Your task to perform on an android device: check storage Image 0: 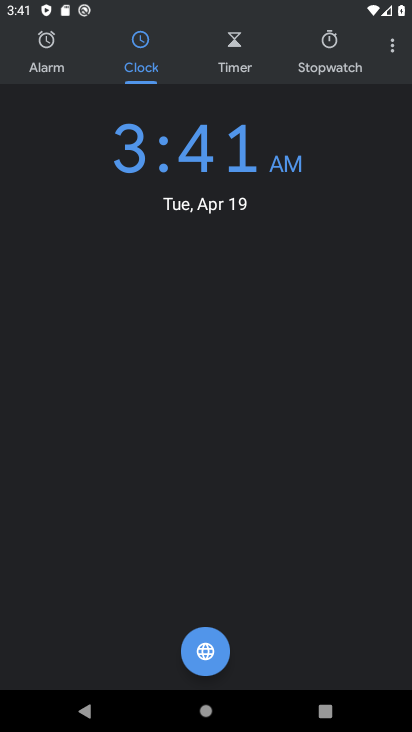
Step 0: press home button
Your task to perform on an android device: check storage Image 1: 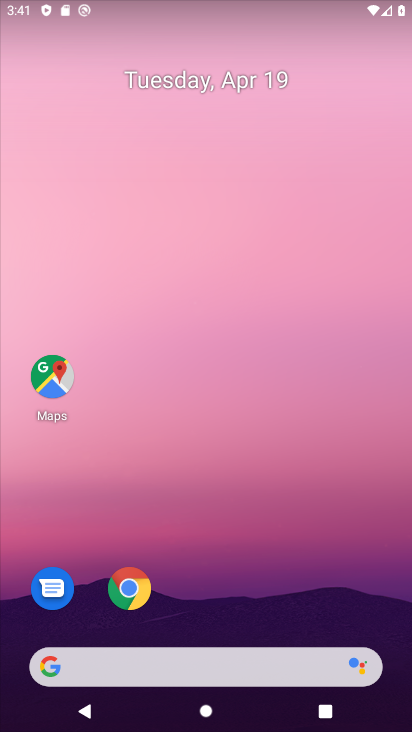
Step 1: drag from (216, 497) to (202, 158)
Your task to perform on an android device: check storage Image 2: 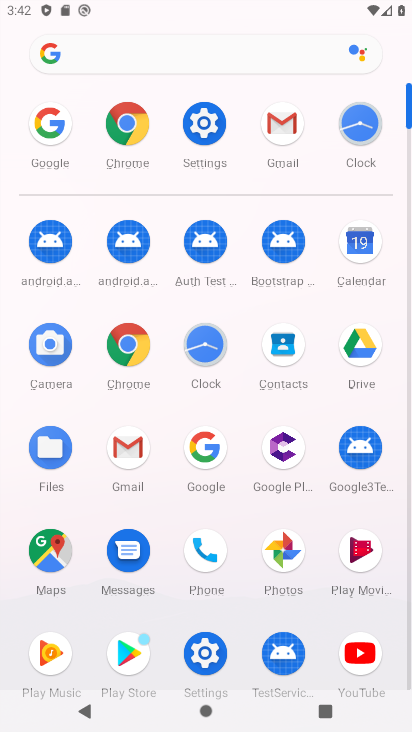
Step 2: click (206, 646)
Your task to perform on an android device: check storage Image 3: 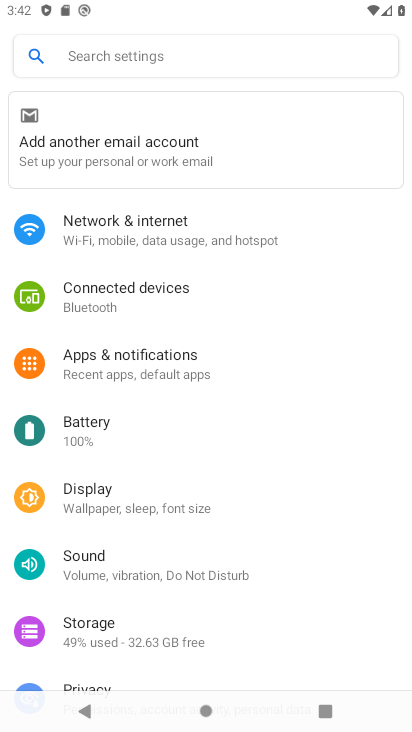
Step 3: click (130, 633)
Your task to perform on an android device: check storage Image 4: 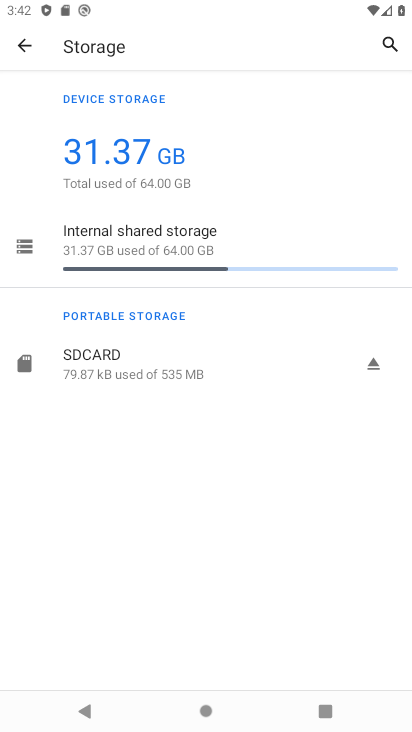
Step 4: task complete